Your task to perform on an android device: Open Reddit.com Image 0: 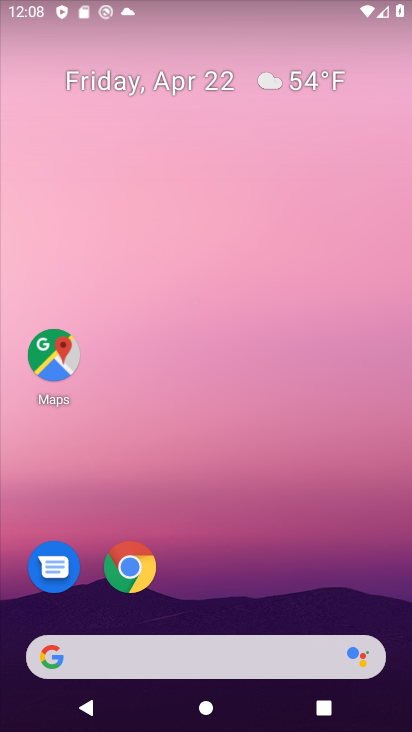
Step 0: drag from (265, 475) to (318, 118)
Your task to perform on an android device: Open Reddit.com Image 1: 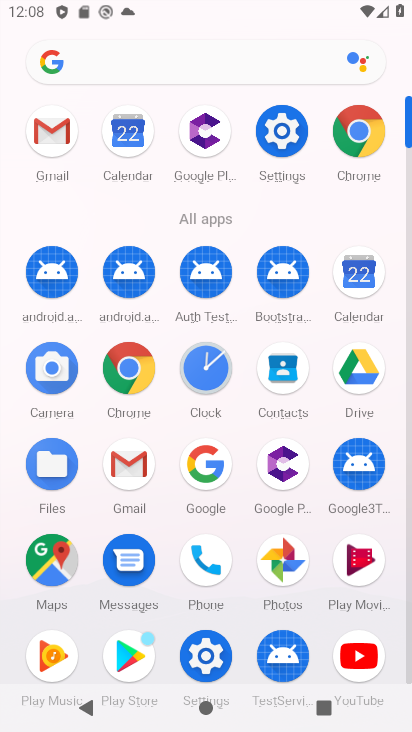
Step 1: click (371, 173)
Your task to perform on an android device: Open Reddit.com Image 2: 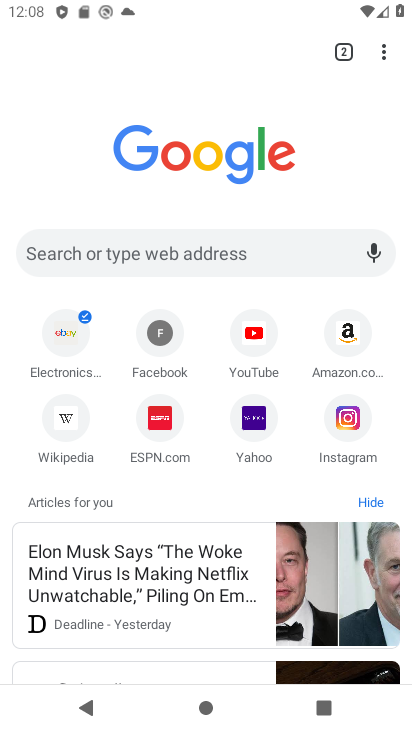
Step 2: click (232, 256)
Your task to perform on an android device: Open Reddit.com Image 3: 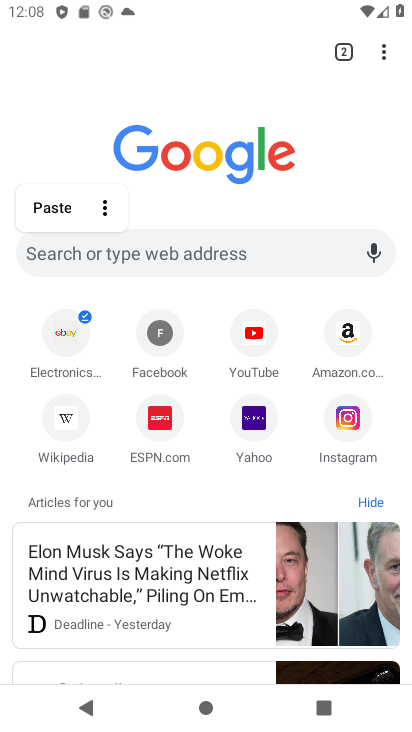
Step 3: click (232, 254)
Your task to perform on an android device: Open Reddit.com Image 4: 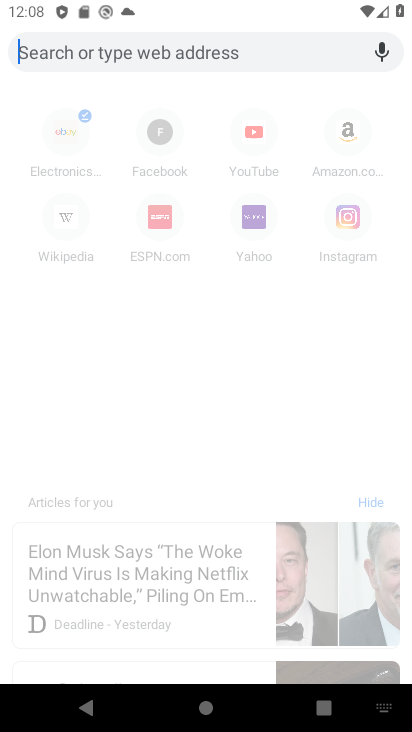
Step 4: type "reddit.com"
Your task to perform on an android device: Open Reddit.com Image 5: 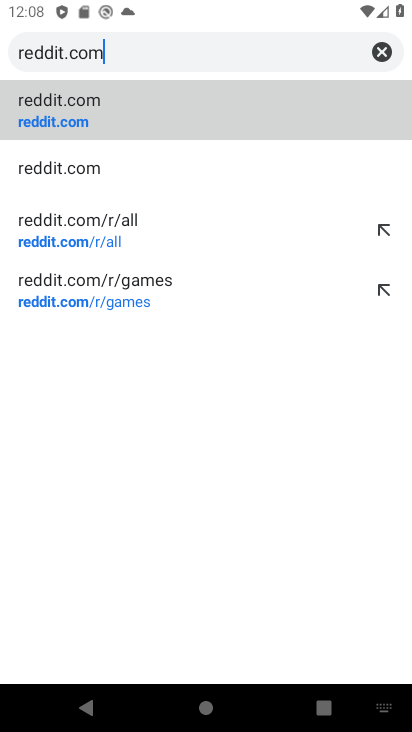
Step 5: click (302, 119)
Your task to perform on an android device: Open Reddit.com Image 6: 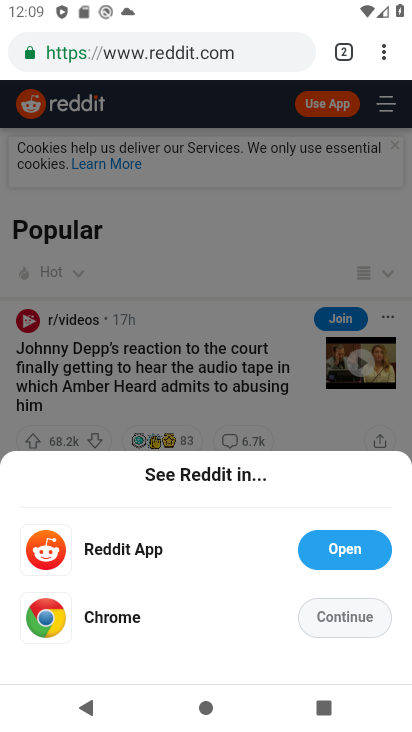
Step 6: click (348, 612)
Your task to perform on an android device: Open Reddit.com Image 7: 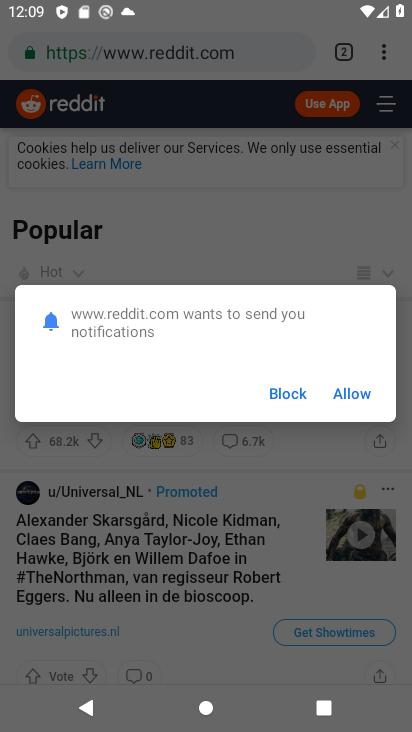
Step 7: click (303, 396)
Your task to perform on an android device: Open Reddit.com Image 8: 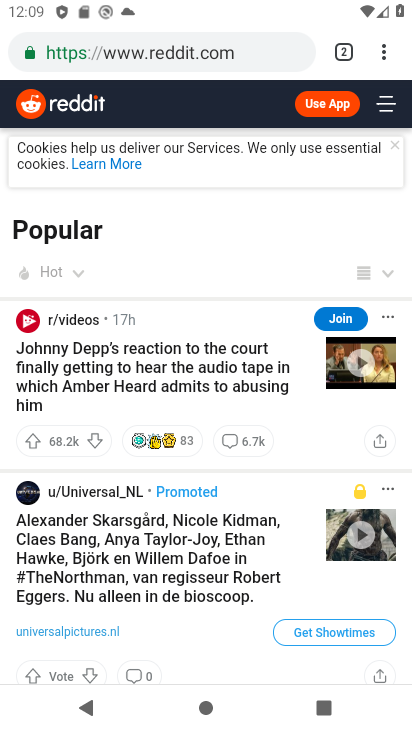
Step 8: task complete